Your task to perform on an android device: delete the emails in spam in the gmail app Image 0: 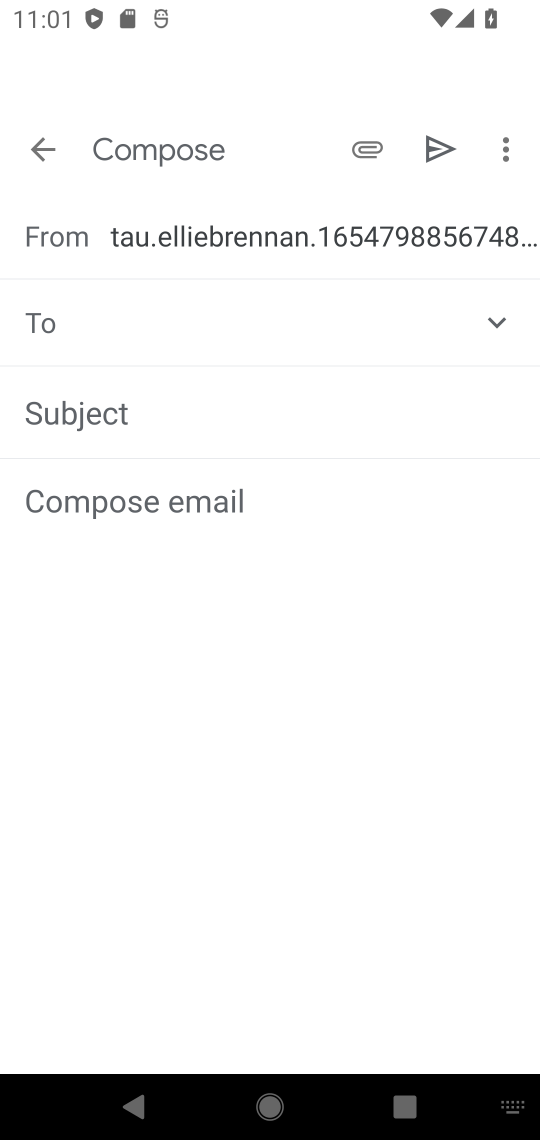
Step 0: press home button
Your task to perform on an android device: delete the emails in spam in the gmail app Image 1: 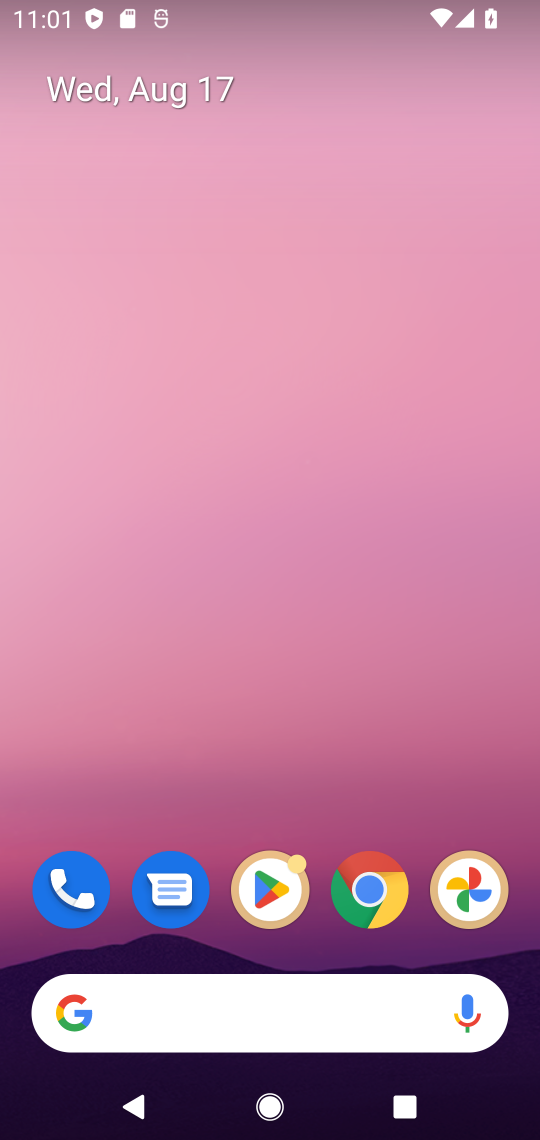
Step 1: drag from (340, 695) to (395, 2)
Your task to perform on an android device: delete the emails in spam in the gmail app Image 2: 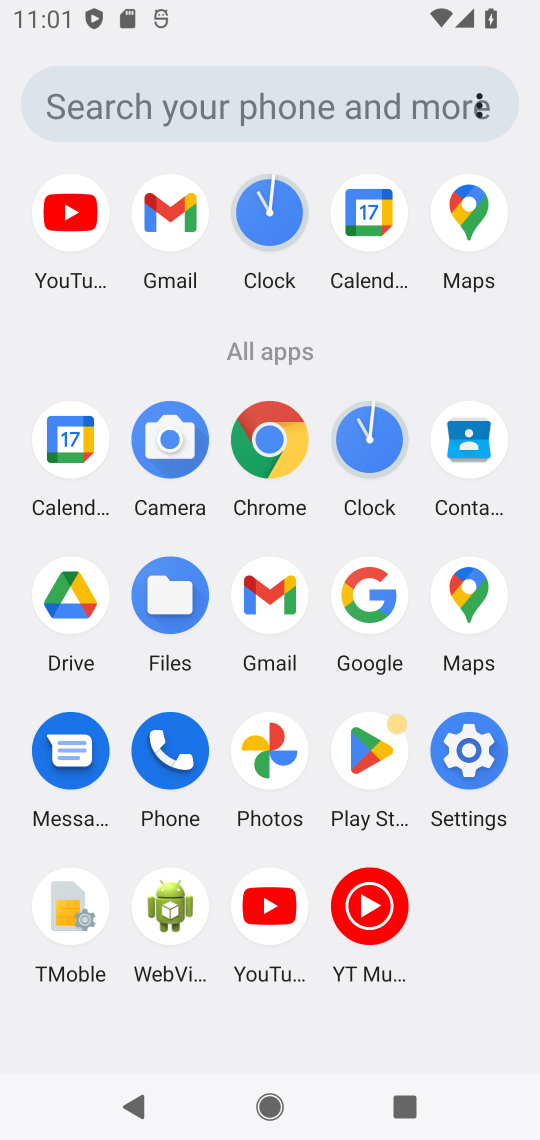
Step 2: click (169, 217)
Your task to perform on an android device: delete the emails in spam in the gmail app Image 3: 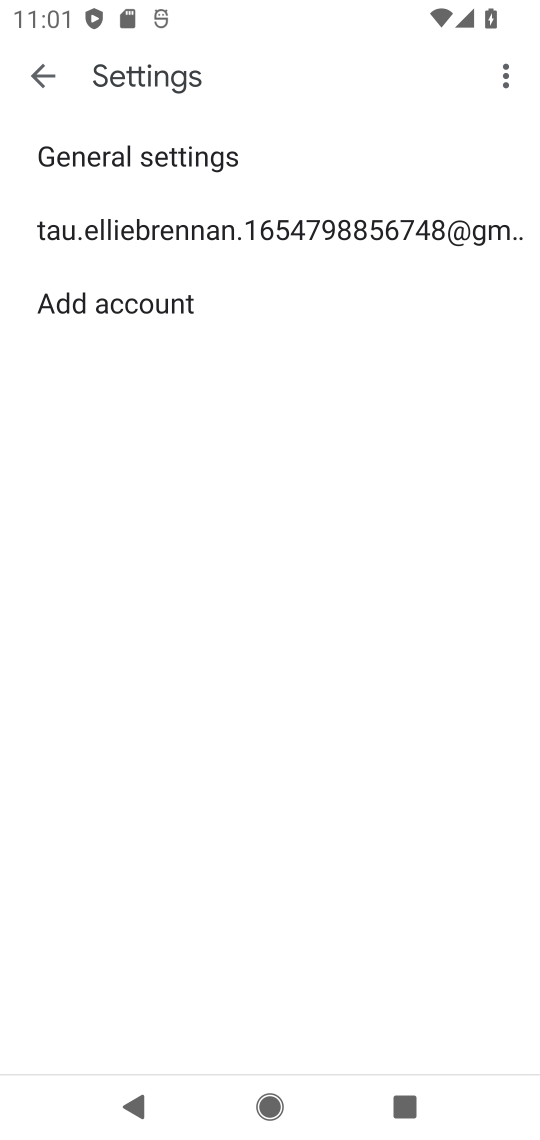
Step 3: click (50, 73)
Your task to perform on an android device: delete the emails in spam in the gmail app Image 4: 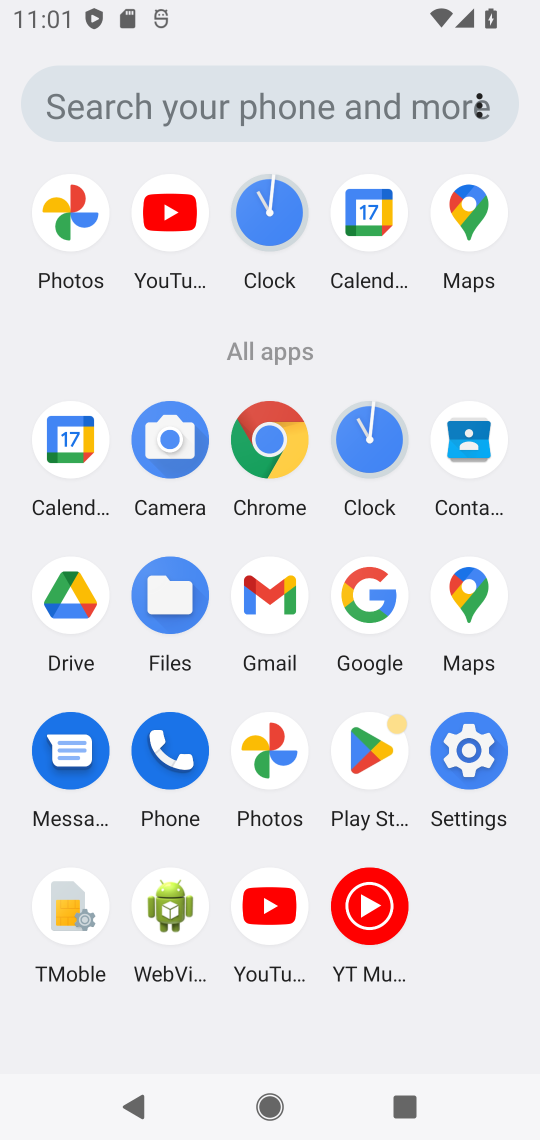
Step 4: click (265, 585)
Your task to perform on an android device: delete the emails in spam in the gmail app Image 5: 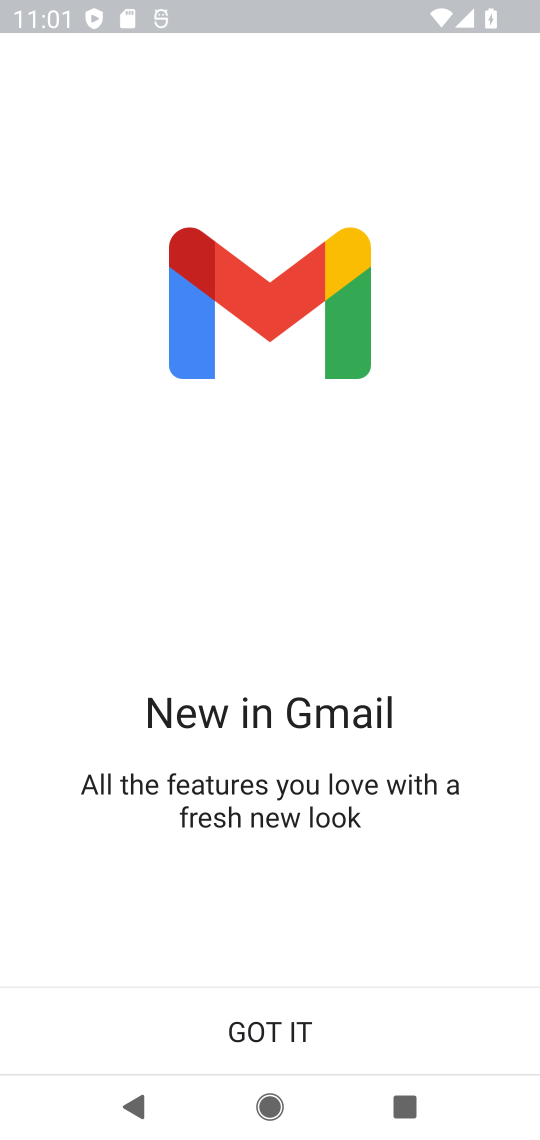
Step 5: click (306, 1007)
Your task to perform on an android device: delete the emails in spam in the gmail app Image 6: 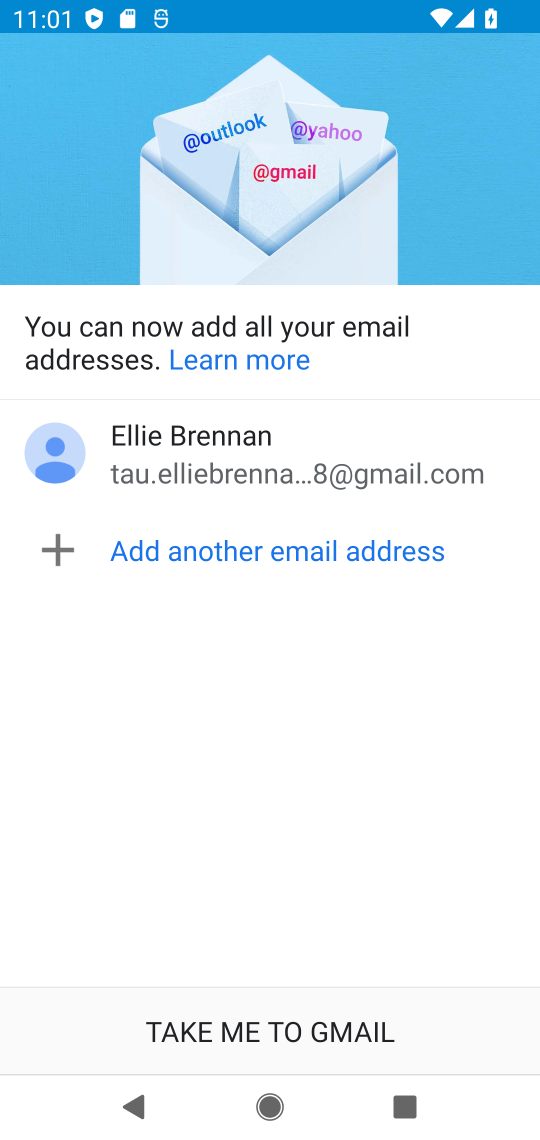
Step 6: click (312, 1035)
Your task to perform on an android device: delete the emails in spam in the gmail app Image 7: 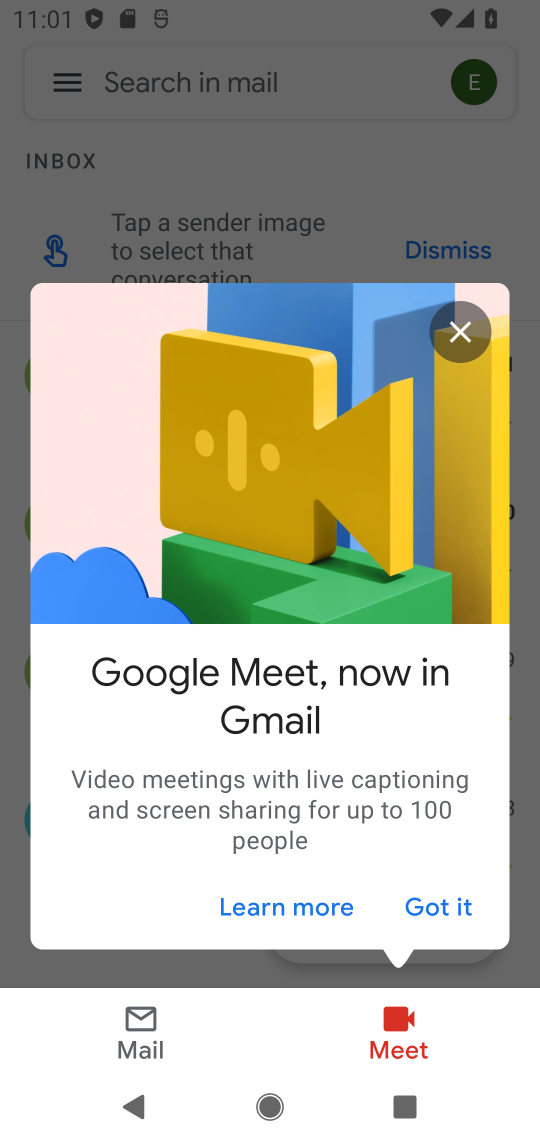
Step 7: click (442, 906)
Your task to perform on an android device: delete the emails in spam in the gmail app Image 8: 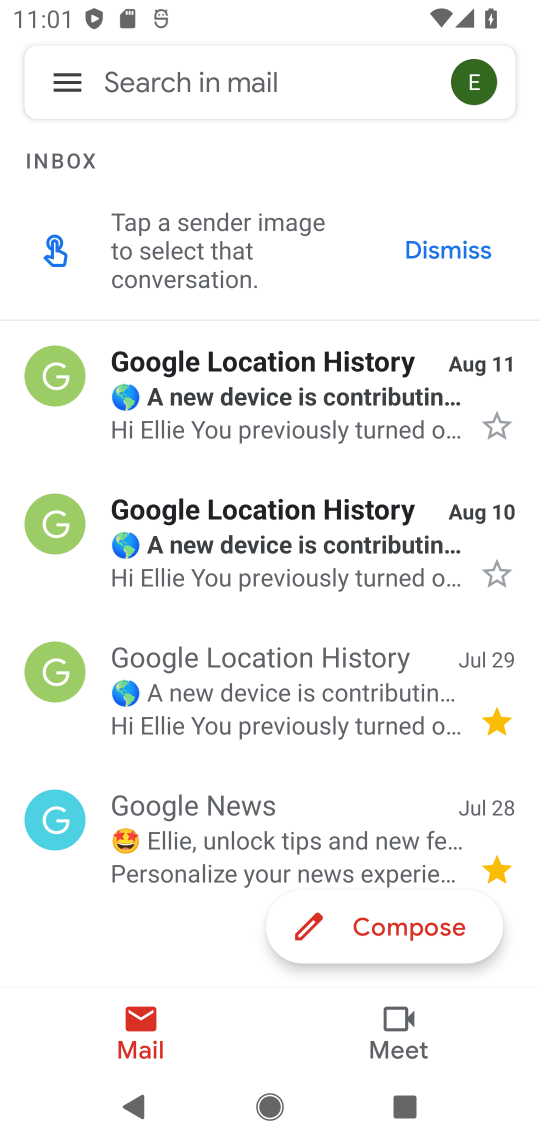
Step 8: click (67, 85)
Your task to perform on an android device: delete the emails in spam in the gmail app Image 9: 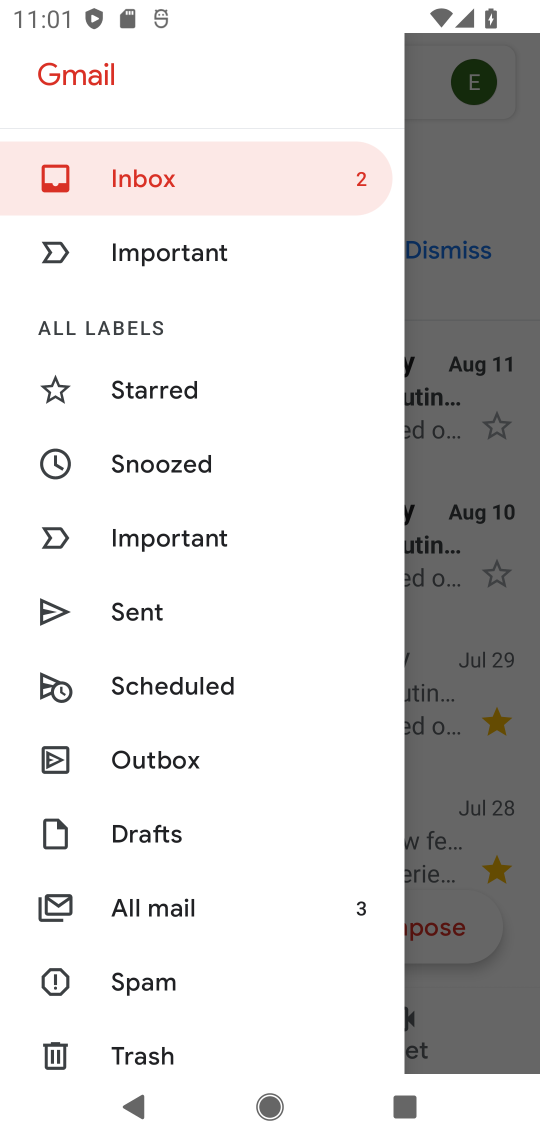
Step 9: click (156, 976)
Your task to perform on an android device: delete the emails in spam in the gmail app Image 10: 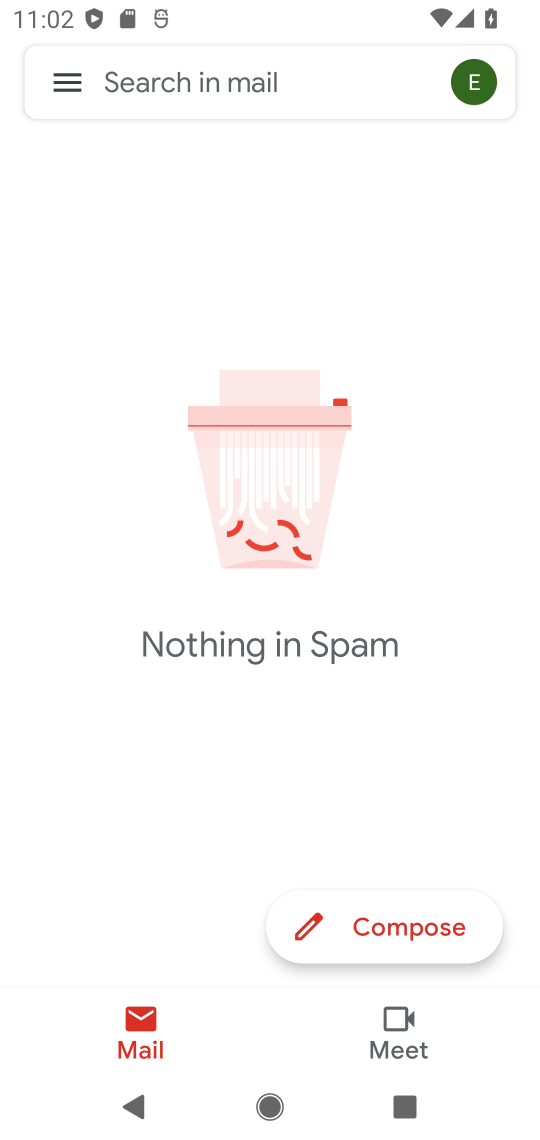
Step 10: task complete